Your task to perform on an android device: change text size in settings app Image 0: 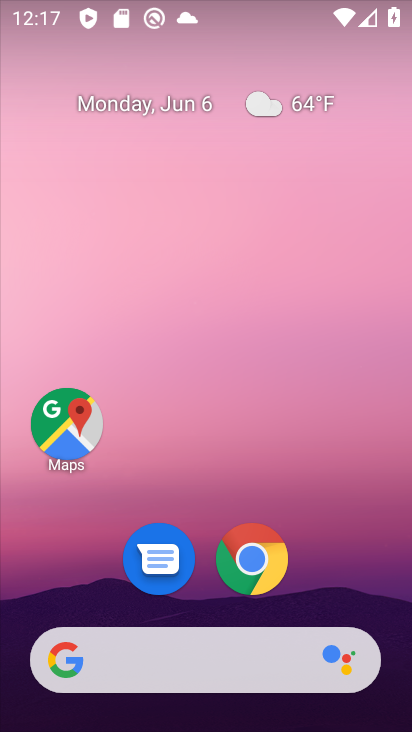
Step 0: drag from (239, 671) to (228, 210)
Your task to perform on an android device: change text size in settings app Image 1: 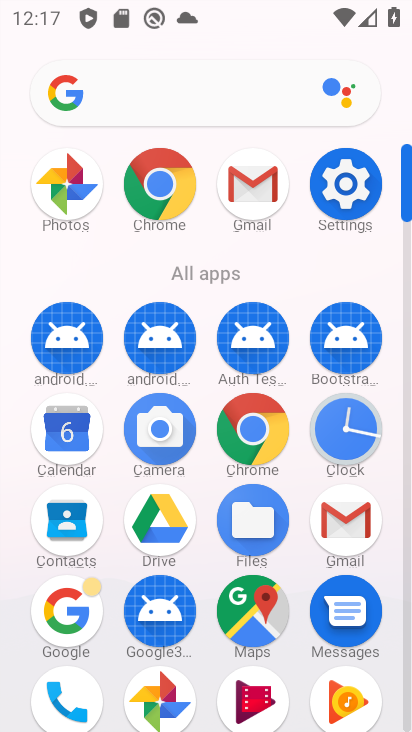
Step 1: click (336, 185)
Your task to perform on an android device: change text size in settings app Image 2: 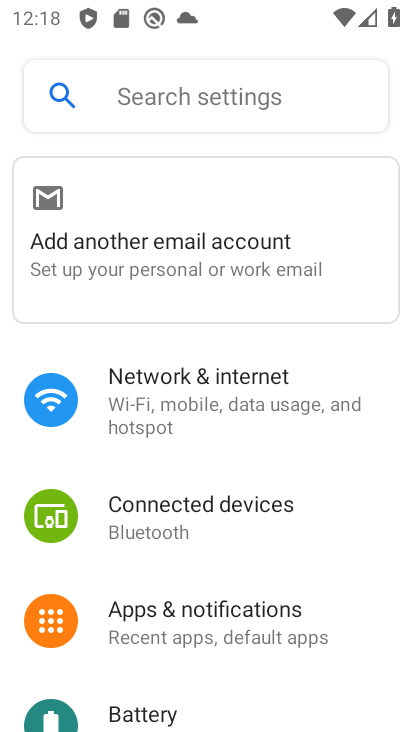
Step 2: click (199, 110)
Your task to perform on an android device: change text size in settings app Image 3: 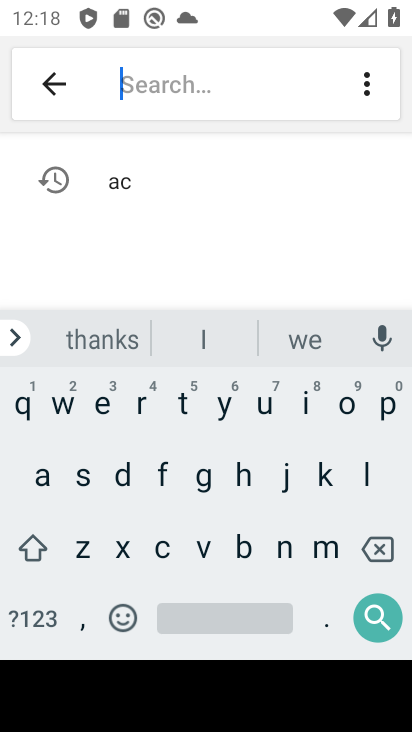
Step 3: click (74, 474)
Your task to perform on an android device: change text size in settings app Image 4: 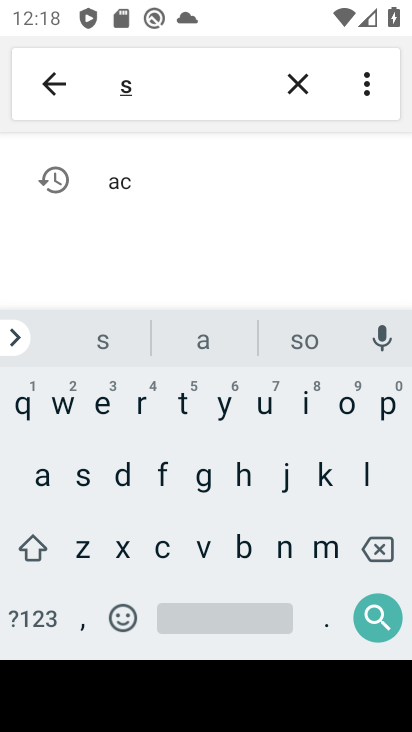
Step 4: click (310, 397)
Your task to perform on an android device: change text size in settings app Image 5: 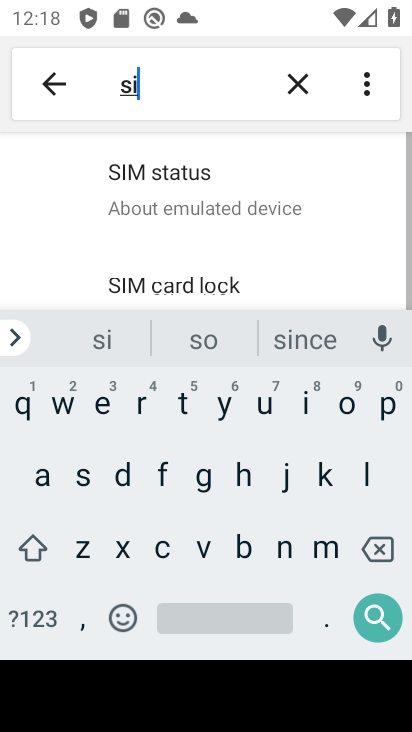
Step 5: click (75, 551)
Your task to perform on an android device: change text size in settings app Image 6: 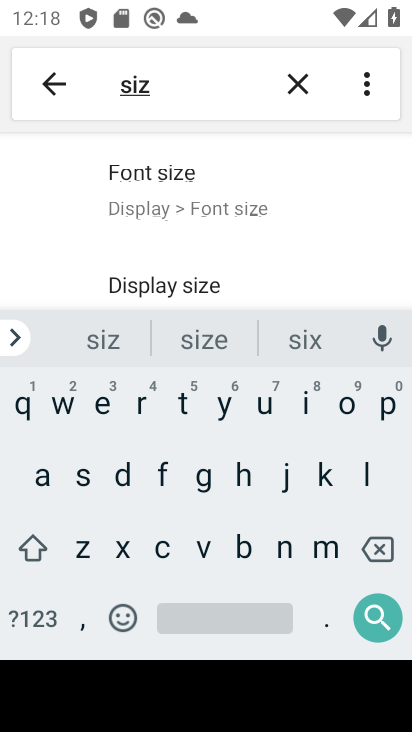
Step 6: click (224, 158)
Your task to perform on an android device: change text size in settings app Image 7: 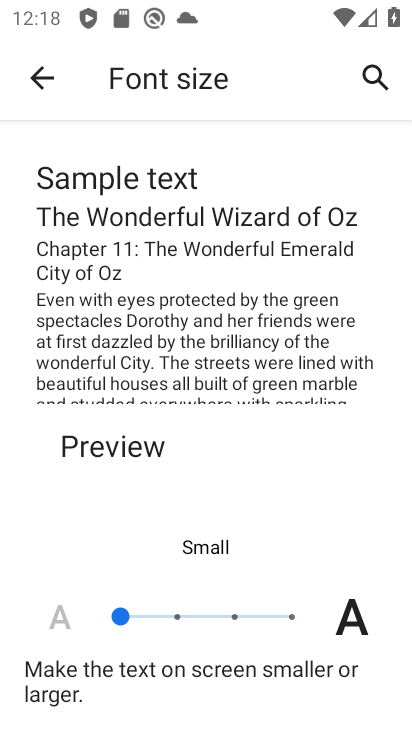
Step 7: click (176, 614)
Your task to perform on an android device: change text size in settings app Image 8: 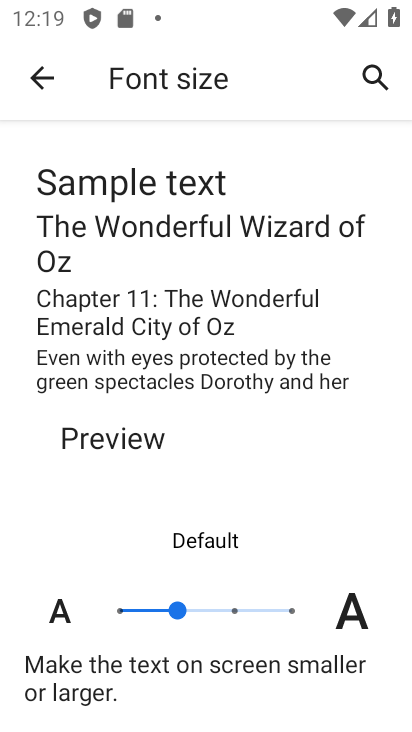
Step 8: task complete